Your task to perform on an android device: check storage Image 0: 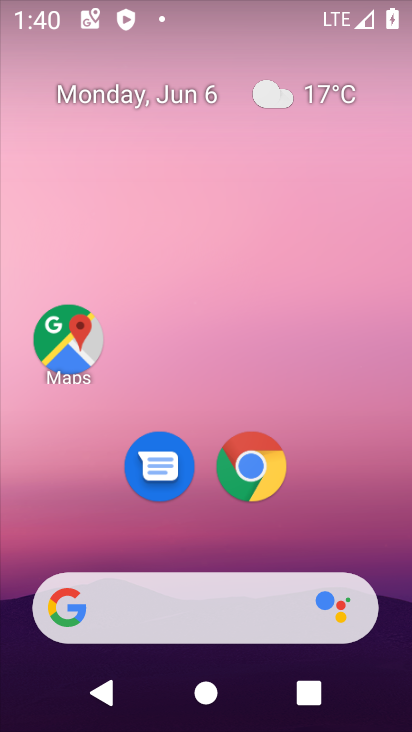
Step 0: press home button
Your task to perform on an android device: check storage Image 1: 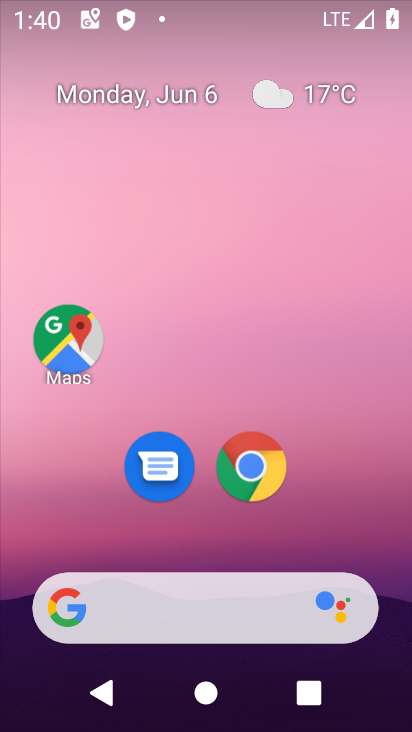
Step 1: drag from (203, 538) to (206, 147)
Your task to perform on an android device: check storage Image 2: 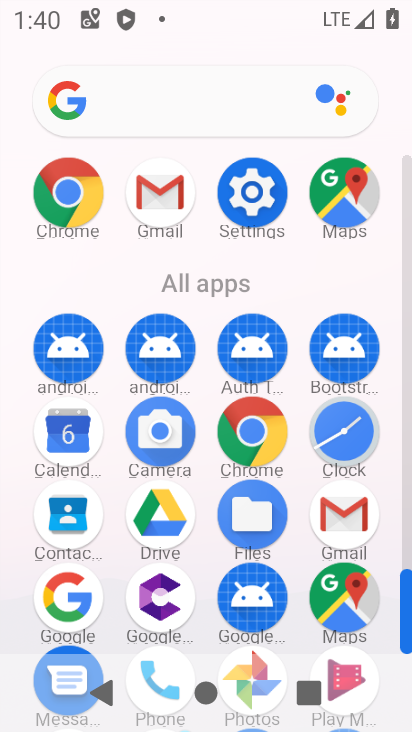
Step 2: click (251, 195)
Your task to perform on an android device: check storage Image 3: 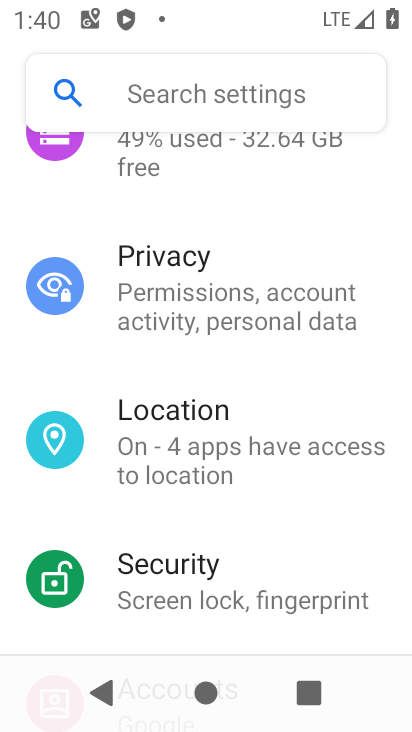
Step 3: drag from (317, 190) to (299, 642)
Your task to perform on an android device: check storage Image 4: 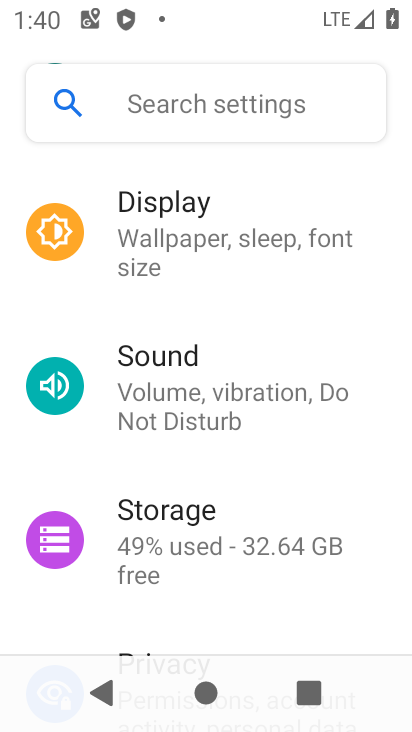
Step 4: click (165, 548)
Your task to perform on an android device: check storage Image 5: 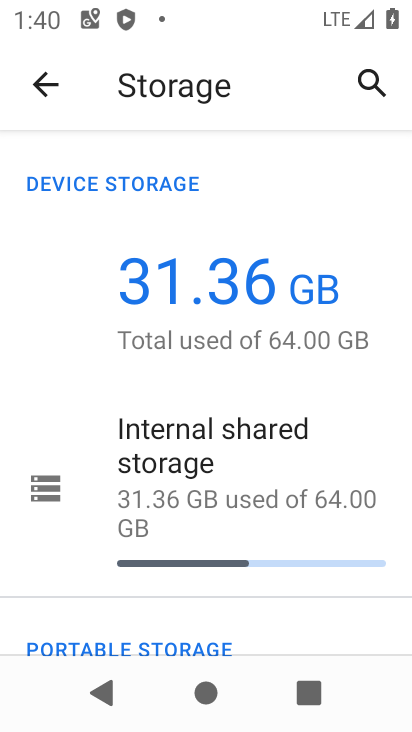
Step 5: task complete